Your task to perform on an android device: turn off wifi Image 0: 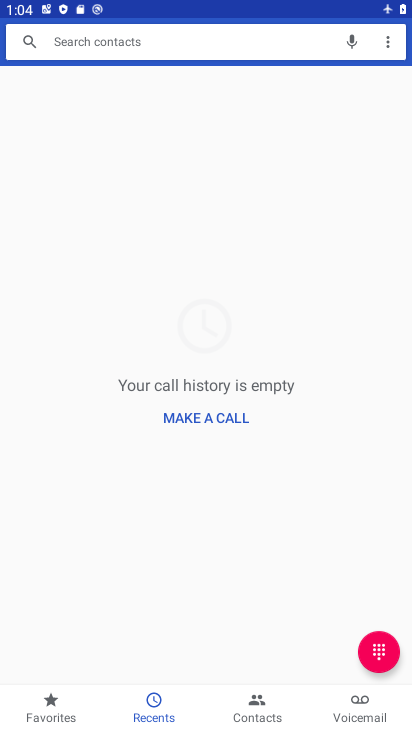
Step 0: press home button
Your task to perform on an android device: turn off wifi Image 1: 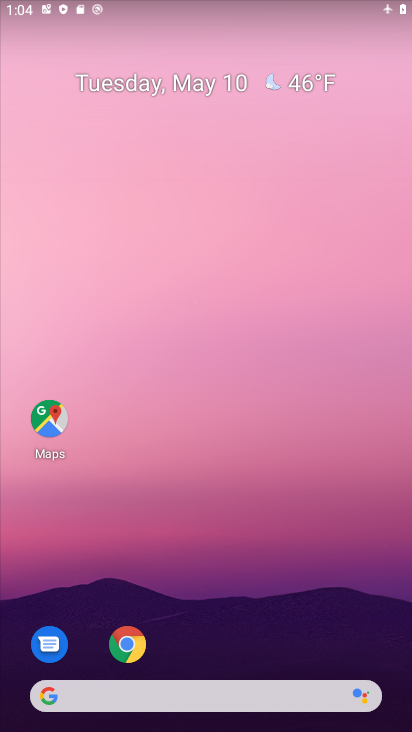
Step 1: task complete